Your task to perform on an android device: change notifications settings Image 0: 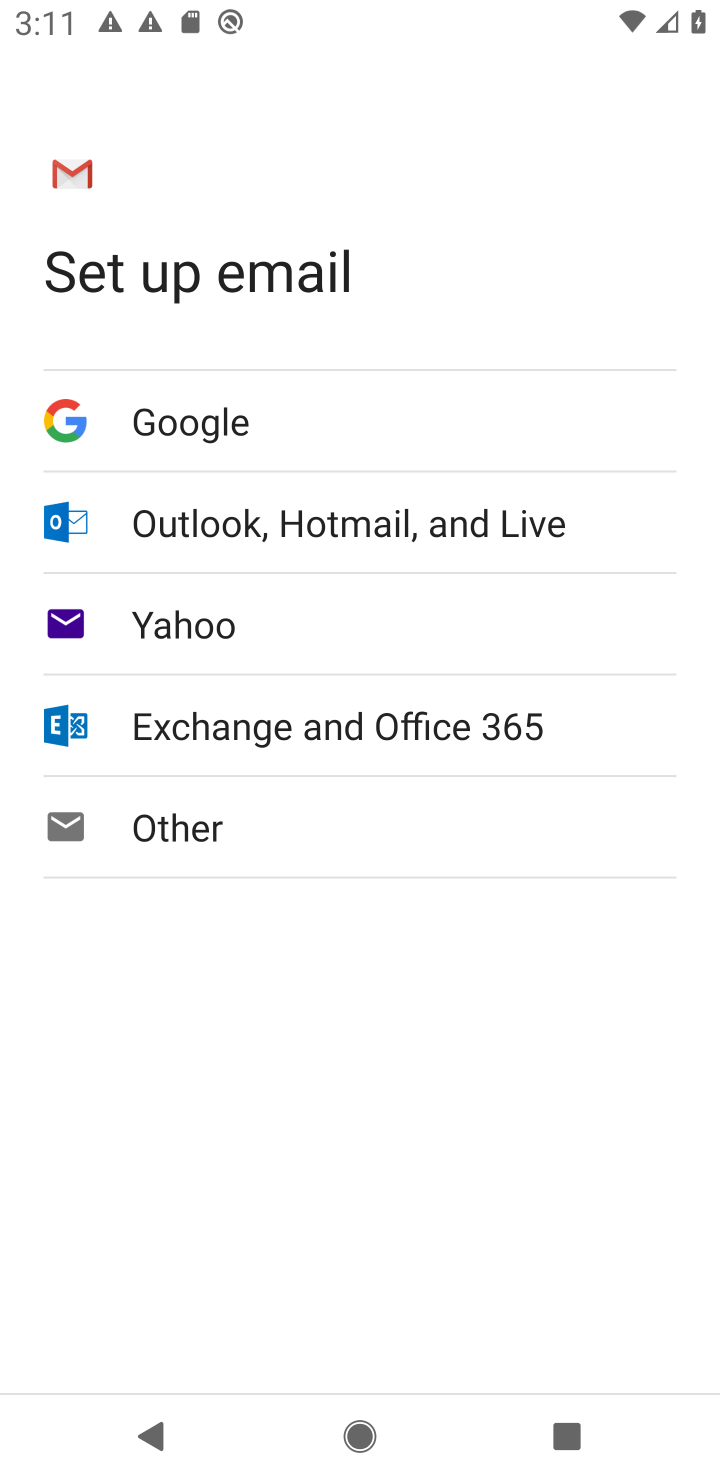
Step 0: press home button
Your task to perform on an android device: change notifications settings Image 1: 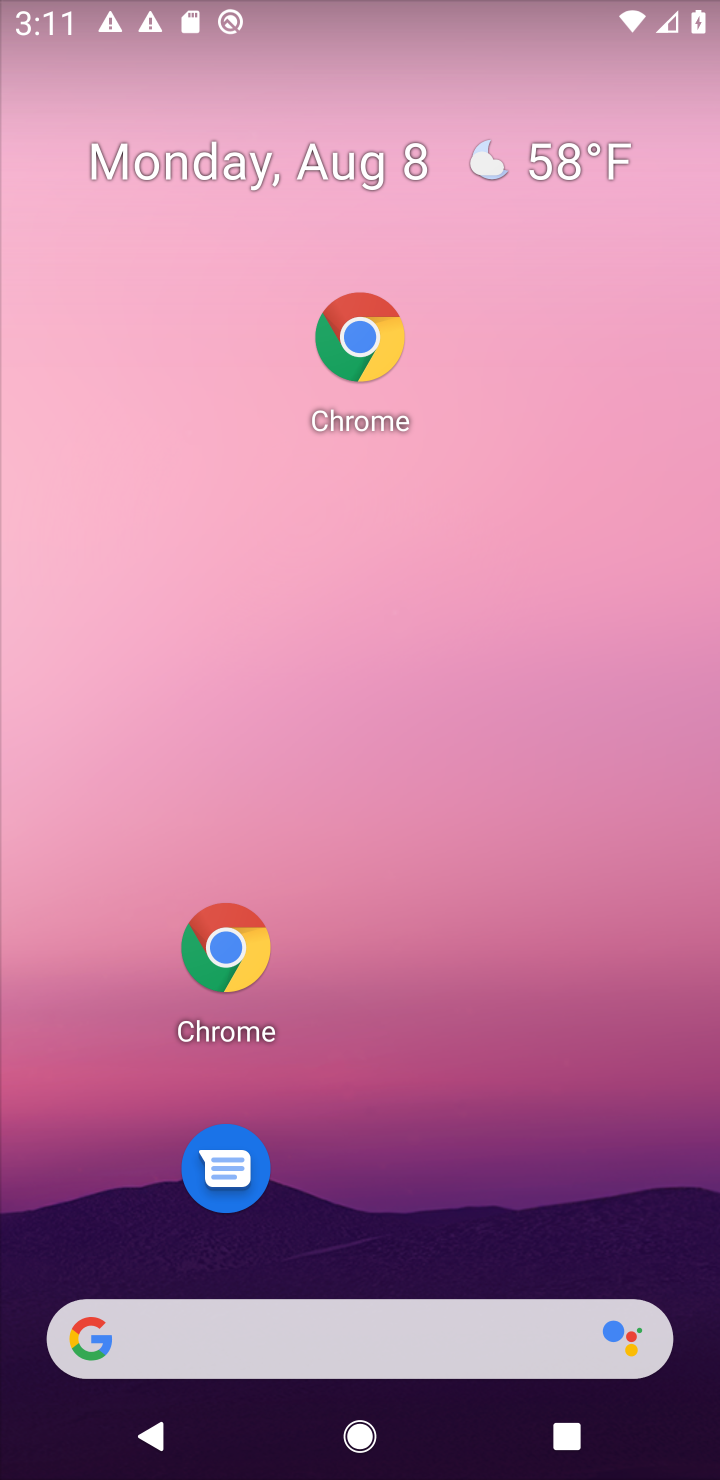
Step 1: drag from (361, 1284) to (485, 248)
Your task to perform on an android device: change notifications settings Image 2: 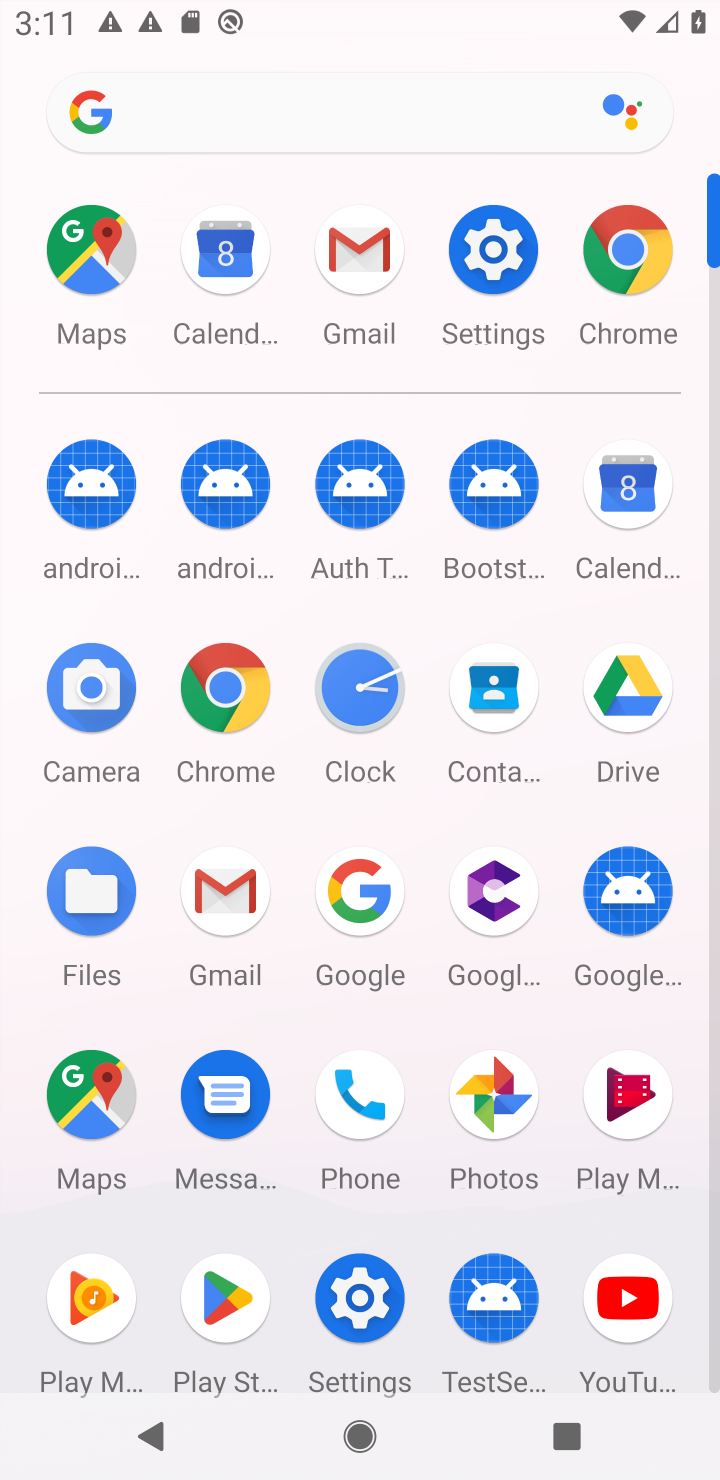
Step 2: click (461, 279)
Your task to perform on an android device: change notifications settings Image 3: 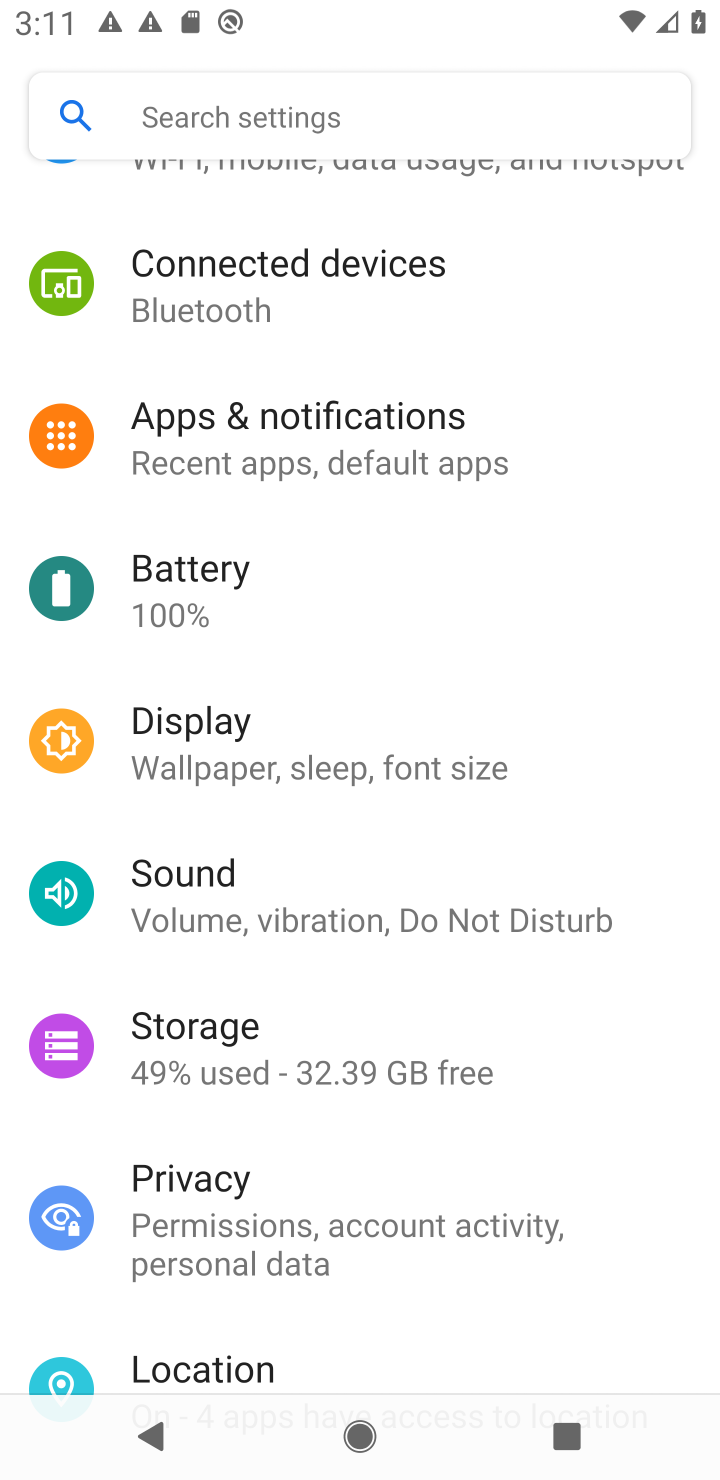
Step 3: click (289, 490)
Your task to perform on an android device: change notifications settings Image 4: 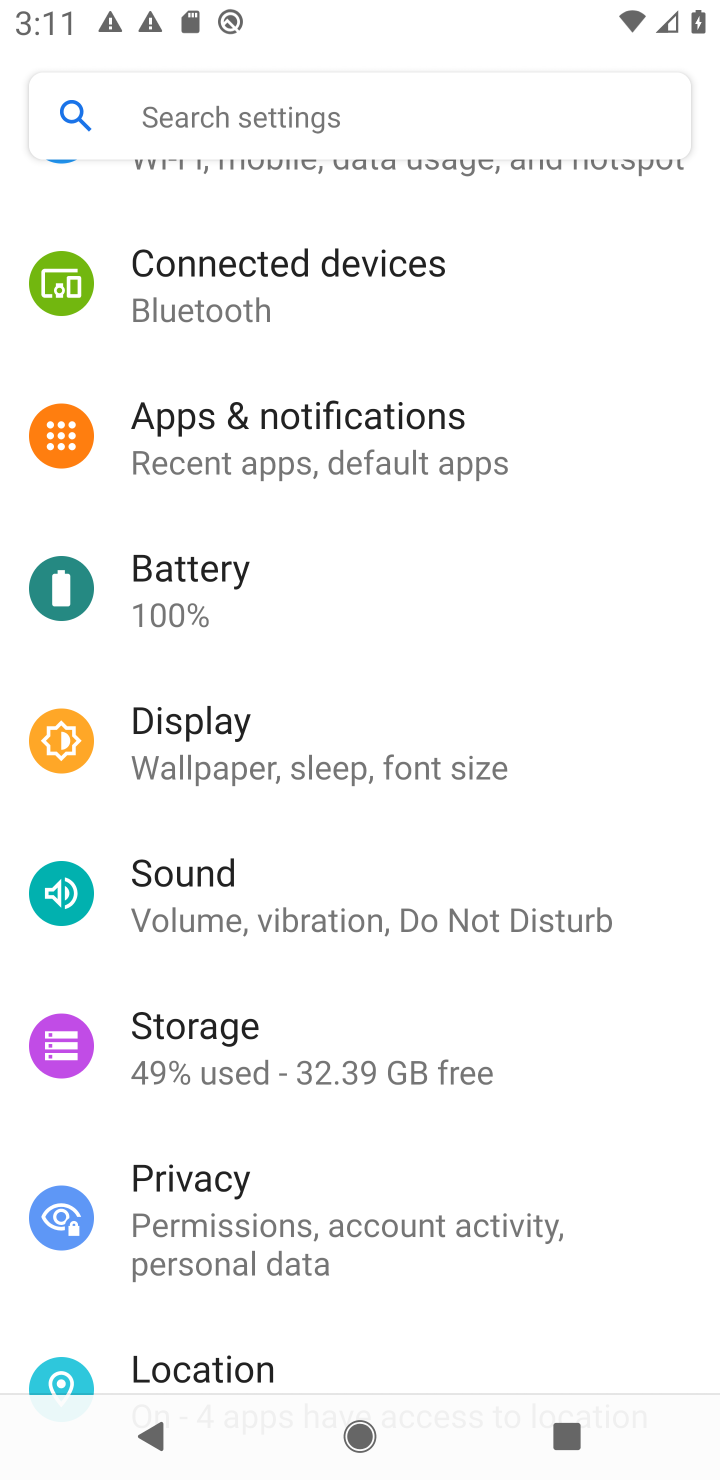
Step 4: task complete